Your task to perform on an android device: turn off sleep mode Image 0: 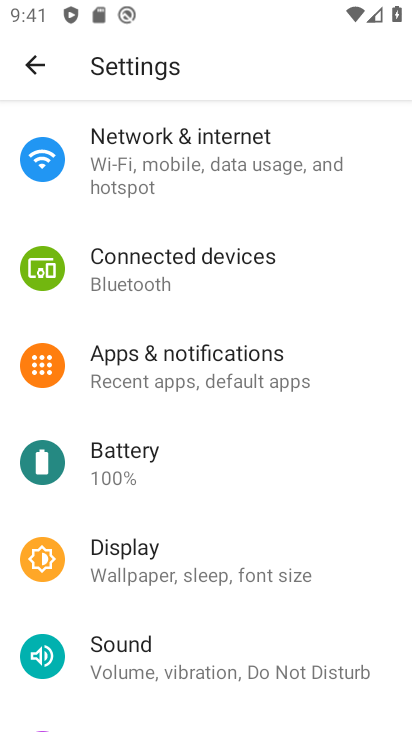
Step 0: click (179, 565)
Your task to perform on an android device: turn off sleep mode Image 1: 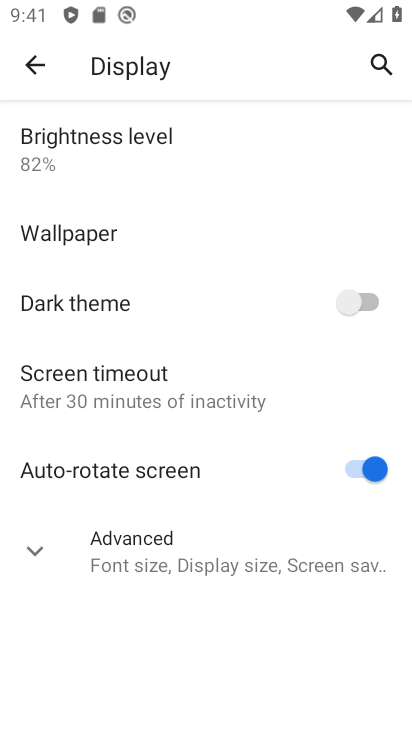
Step 1: click (179, 558)
Your task to perform on an android device: turn off sleep mode Image 2: 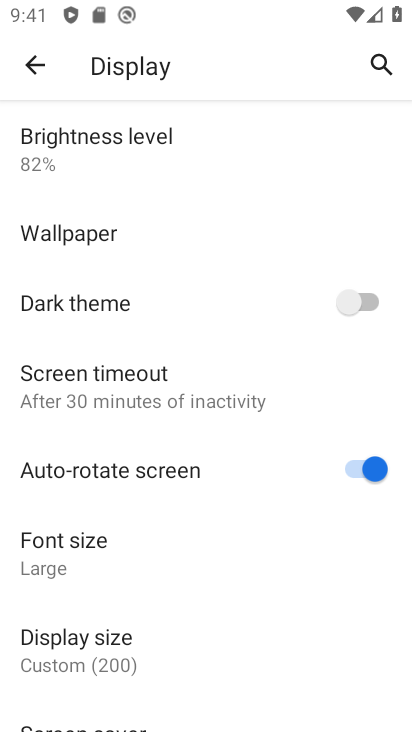
Step 2: click (95, 394)
Your task to perform on an android device: turn off sleep mode Image 3: 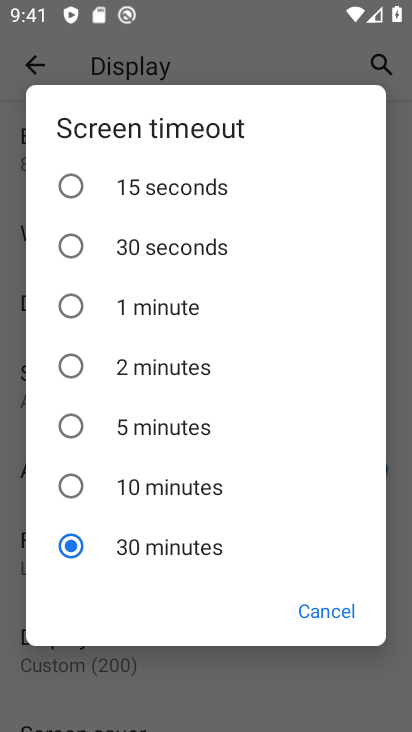
Step 3: click (199, 408)
Your task to perform on an android device: turn off sleep mode Image 4: 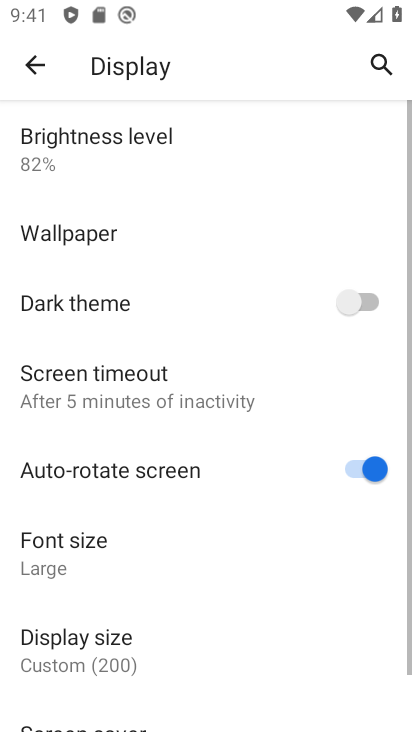
Step 4: task complete